Your task to perform on an android device: see tabs open on other devices in the chrome app Image 0: 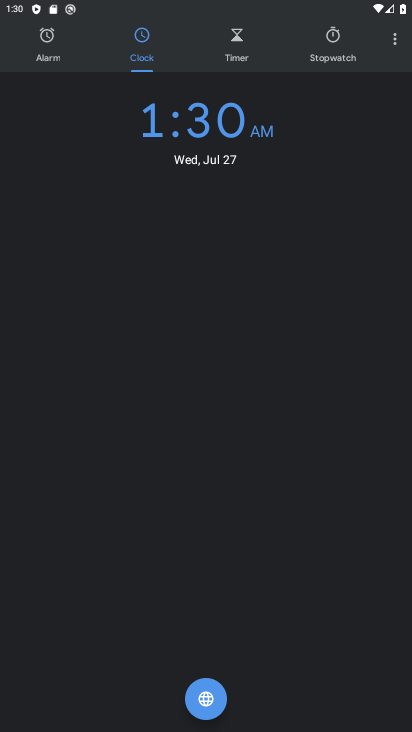
Step 0: press back button
Your task to perform on an android device: see tabs open on other devices in the chrome app Image 1: 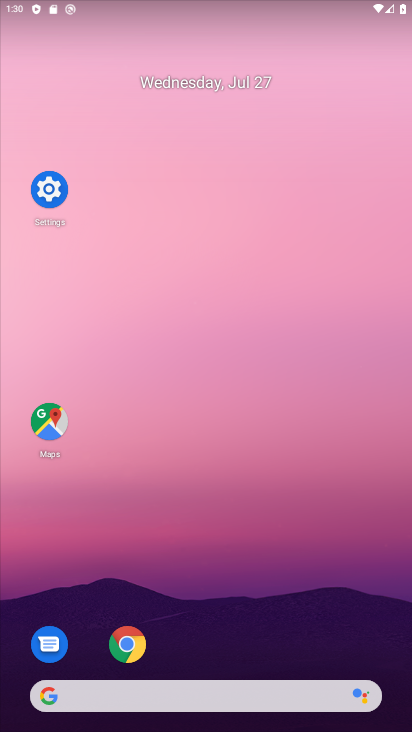
Step 1: click (125, 635)
Your task to perform on an android device: see tabs open on other devices in the chrome app Image 2: 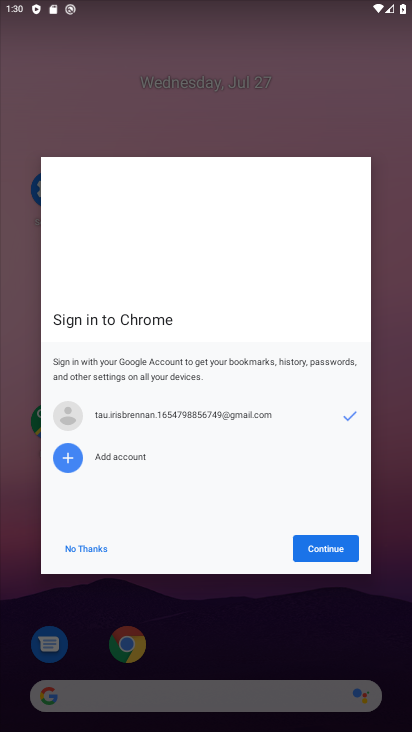
Step 2: click (320, 556)
Your task to perform on an android device: see tabs open on other devices in the chrome app Image 3: 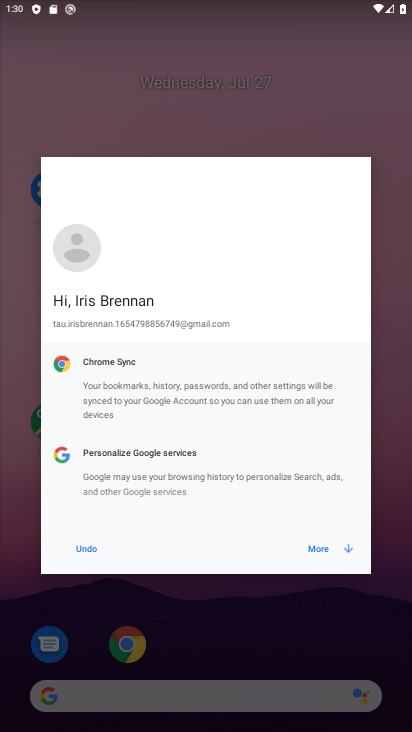
Step 3: click (321, 557)
Your task to perform on an android device: see tabs open on other devices in the chrome app Image 4: 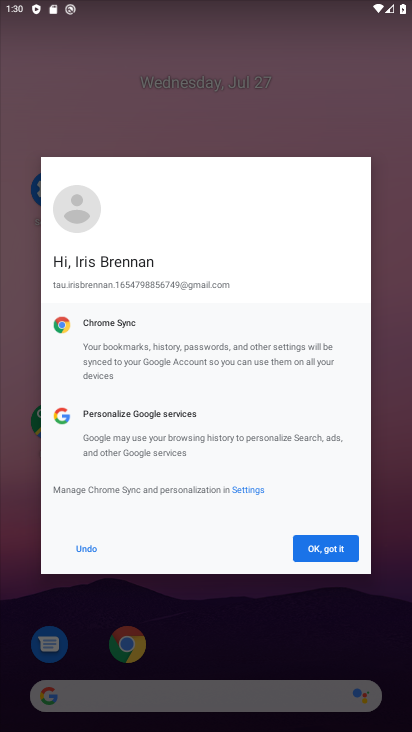
Step 4: click (319, 554)
Your task to perform on an android device: see tabs open on other devices in the chrome app Image 5: 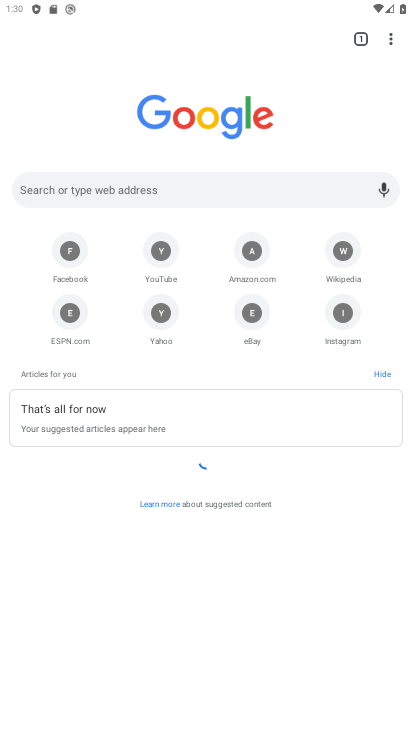
Step 5: click (385, 43)
Your task to perform on an android device: see tabs open on other devices in the chrome app Image 6: 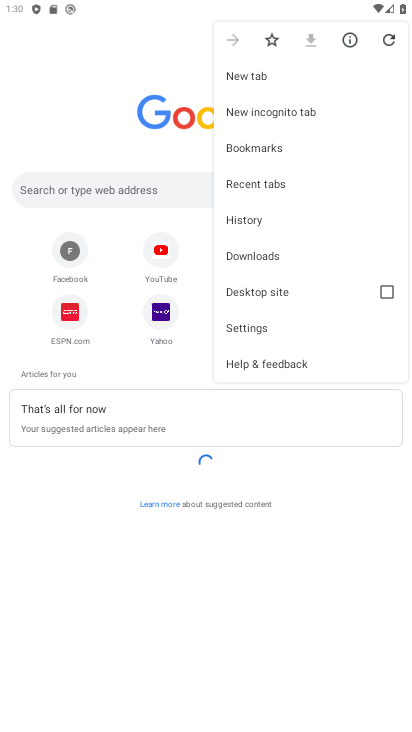
Step 6: click (290, 182)
Your task to perform on an android device: see tabs open on other devices in the chrome app Image 7: 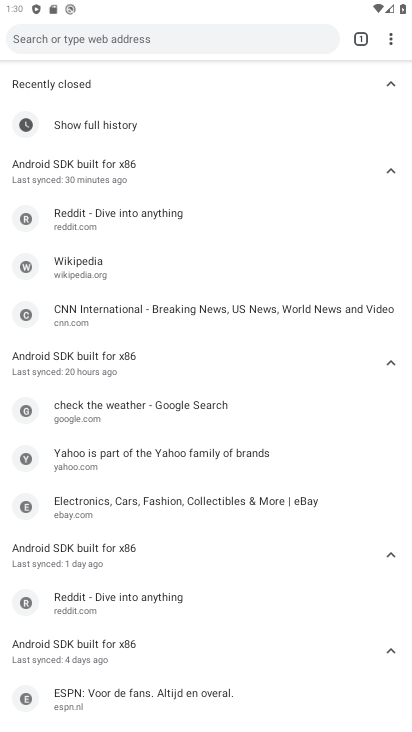
Step 7: task complete